Your task to perform on an android device: What's on my calendar tomorrow? Image 0: 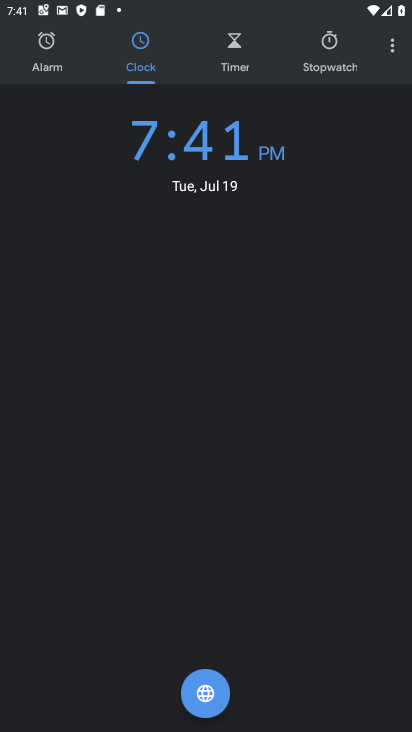
Step 0: press home button
Your task to perform on an android device: What's on my calendar tomorrow? Image 1: 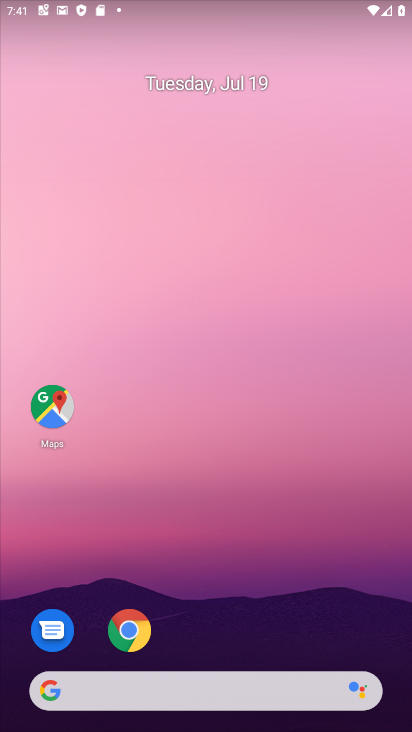
Step 1: drag from (263, 602) to (322, 73)
Your task to perform on an android device: What's on my calendar tomorrow? Image 2: 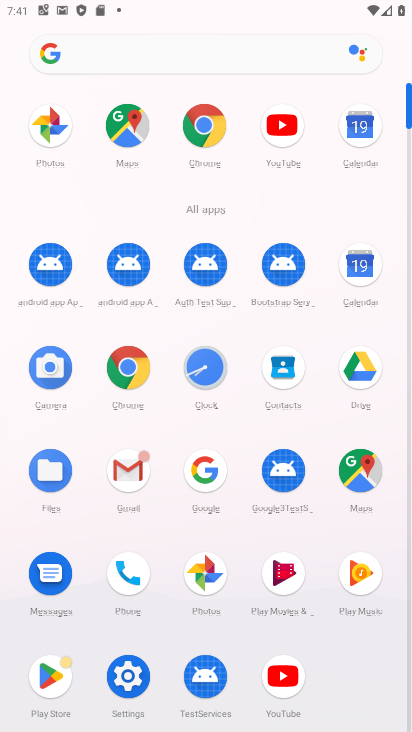
Step 2: click (364, 260)
Your task to perform on an android device: What's on my calendar tomorrow? Image 3: 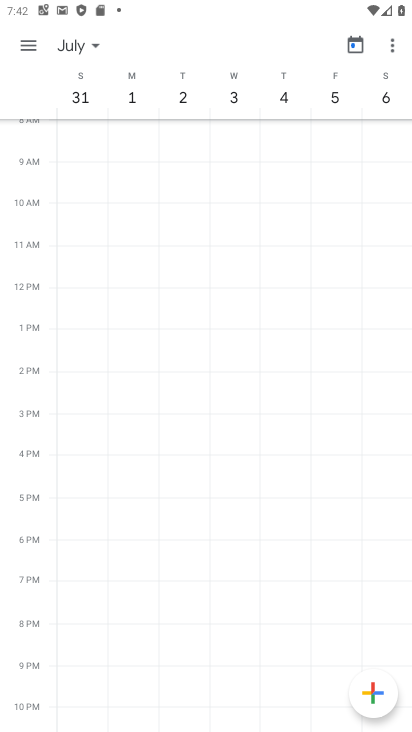
Step 3: click (88, 46)
Your task to perform on an android device: What's on my calendar tomorrow? Image 4: 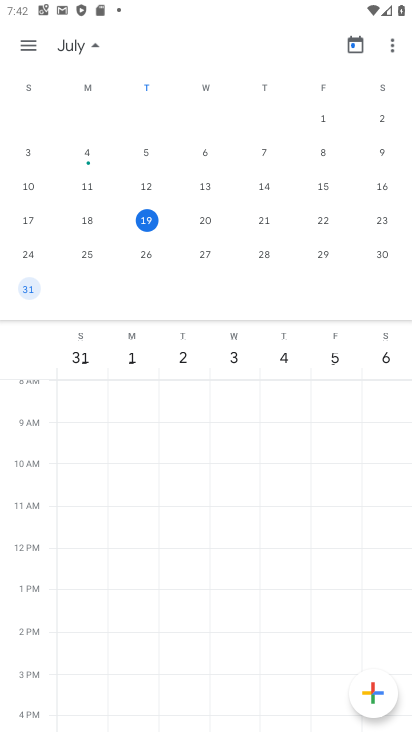
Step 4: click (209, 217)
Your task to perform on an android device: What's on my calendar tomorrow? Image 5: 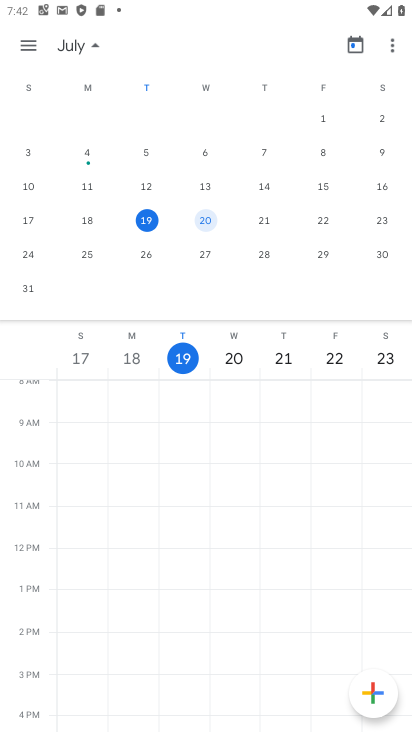
Step 5: drag from (242, 532) to (275, 250)
Your task to perform on an android device: What's on my calendar tomorrow? Image 6: 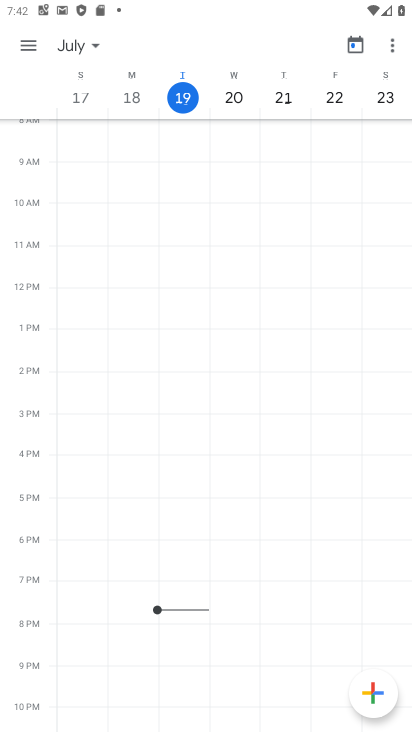
Step 6: click (237, 105)
Your task to perform on an android device: What's on my calendar tomorrow? Image 7: 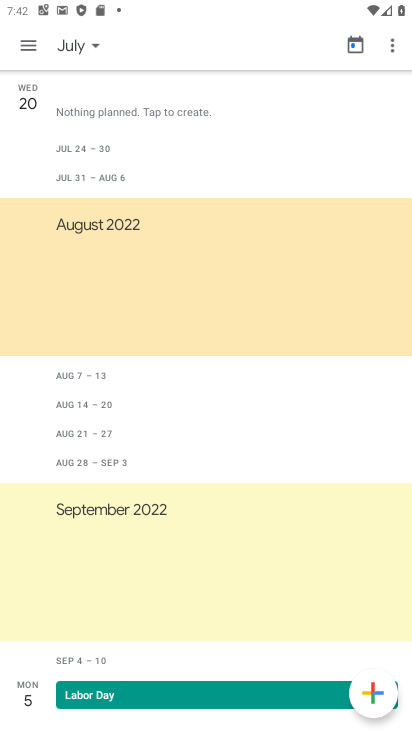
Step 7: task complete